Your task to perform on an android device: toggle data saver in the chrome app Image 0: 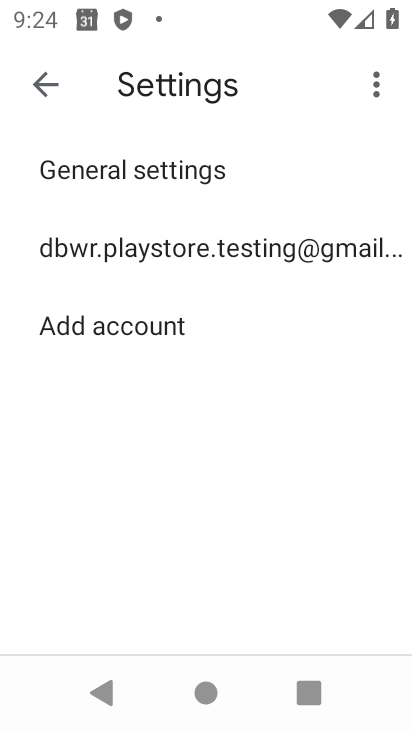
Step 0: press back button
Your task to perform on an android device: toggle data saver in the chrome app Image 1: 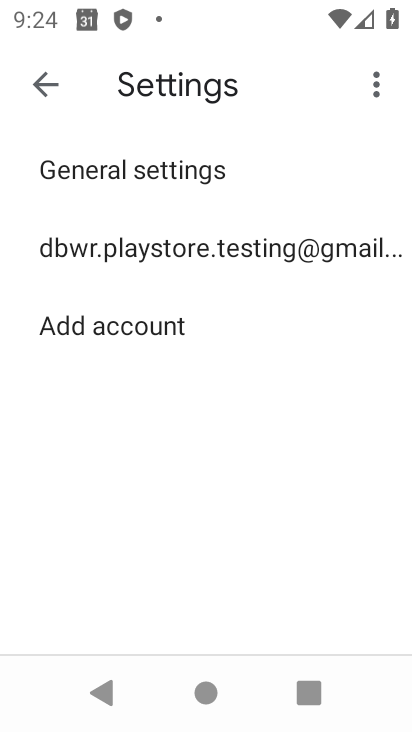
Step 1: press back button
Your task to perform on an android device: toggle data saver in the chrome app Image 2: 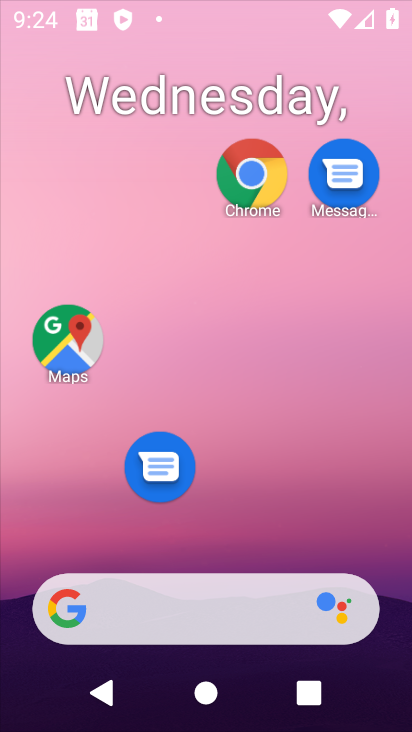
Step 2: press back button
Your task to perform on an android device: toggle data saver in the chrome app Image 3: 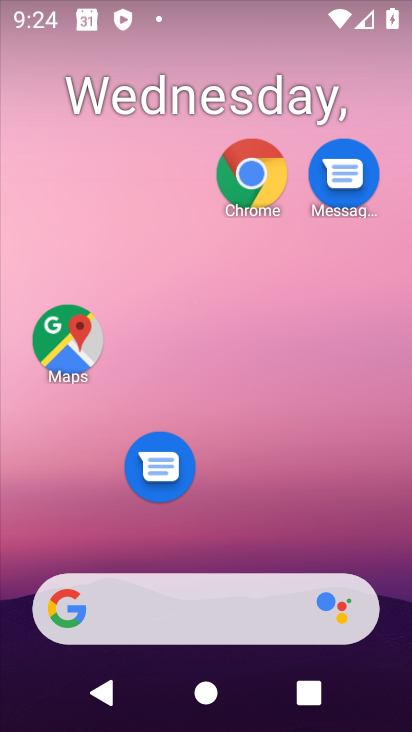
Step 3: drag from (313, 506) to (122, 106)
Your task to perform on an android device: toggle data saver in the chrome app Image 4: 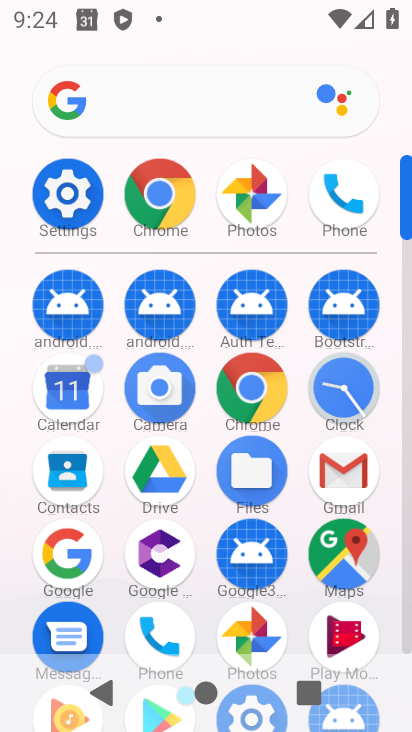
Step 4: click (160, 199)
Your task to perform on an android device: toggle data saver in the chrome app Image 5: 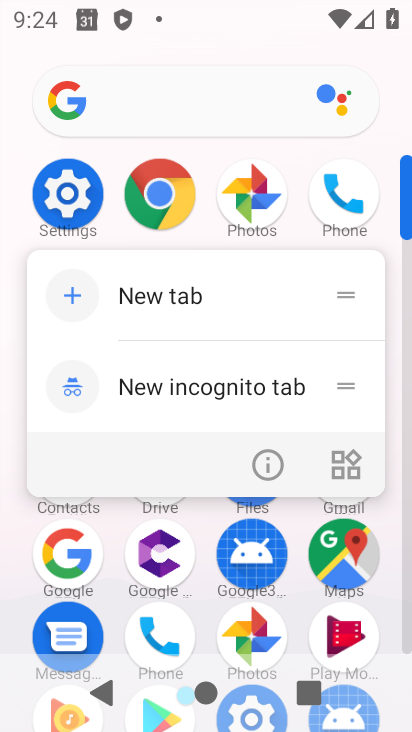
Step 5: click (160, 199)
Your task to perform on an android device: toggle data saver in the chrome app Image 6: 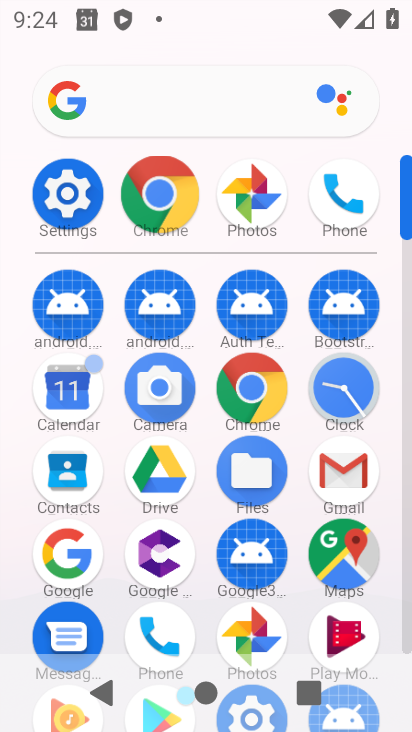
Step 6: click (160, 199)
Your task to perform on an android device: toggle data saver in the chrome app Image 7: 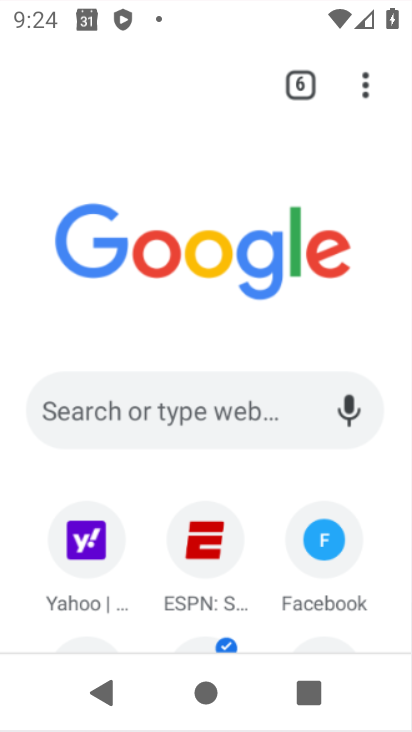
Step 7: click (160, 199)
Your task to perform on an android device: toggle data saver in the chrome app Image 8: 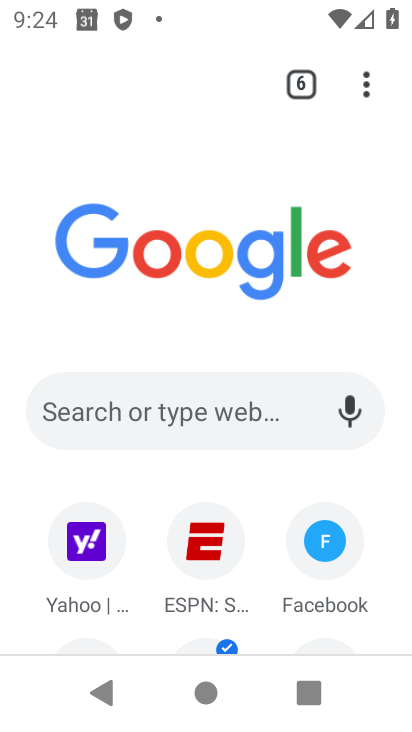
Step 8: click (160, 199)
Your task to perform on an android device: toggle data saver in the chrome app Image 9: 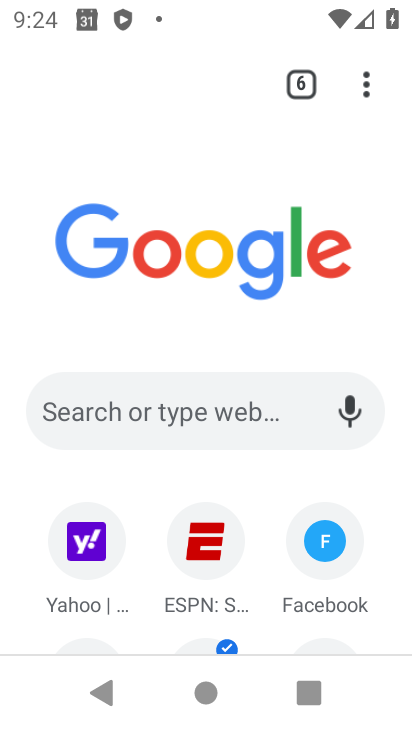
Step 9: drag from (363, 86) to (95, 513)
Your task to perform on an android device: toggle data saver in the chrome app Image 10: 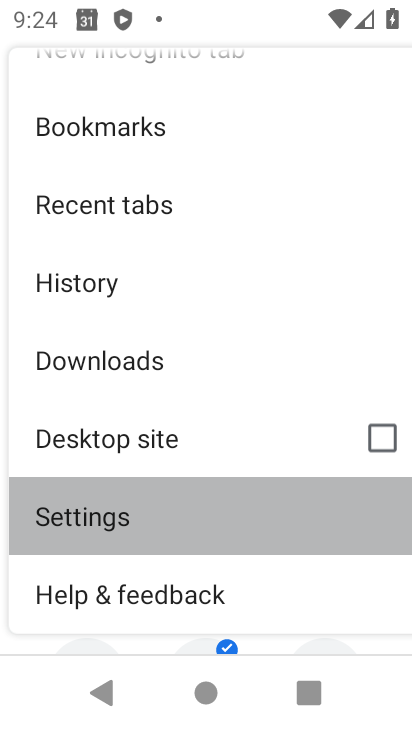
Step 10: click (93, 513)
Your task to perform on an android device: toggle data saver in the chrome app Image 11: 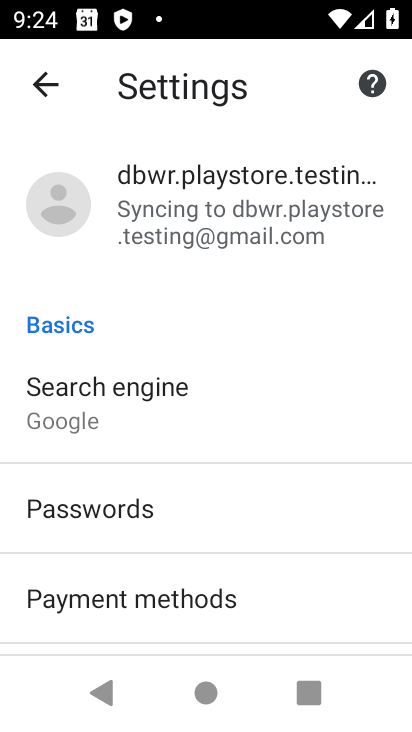
Step 11: drag from (182, 531) to (173, 133)
Your task to perform on an android device: toggle data saver in the chrome app Image 12: 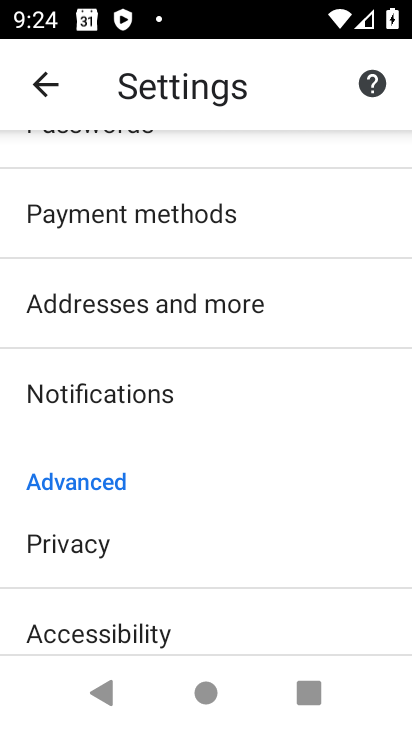
Step 12: drag from (216, 418) to (382, 123)
Your task to perform on an android device: toggle data saver in the chrome app Image 13: 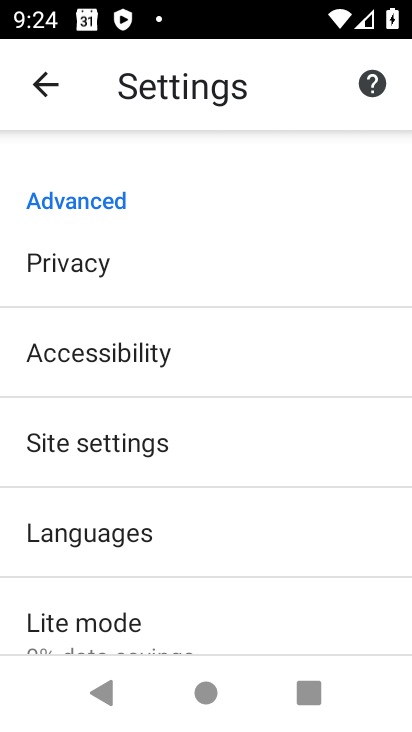
Step 13: click (109, 140)
Your task to perform on an android device: toggle data saver in the chrome app Image 14: 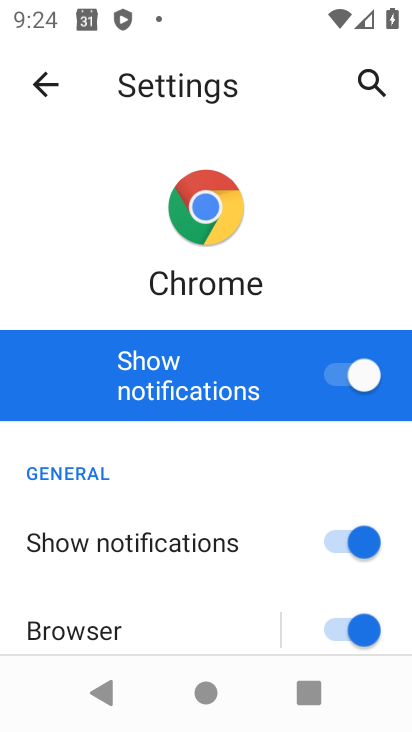
Step 14: click (45, 83)
Your task to perform on an android device: toggle data saver in the chrome app Image 15: 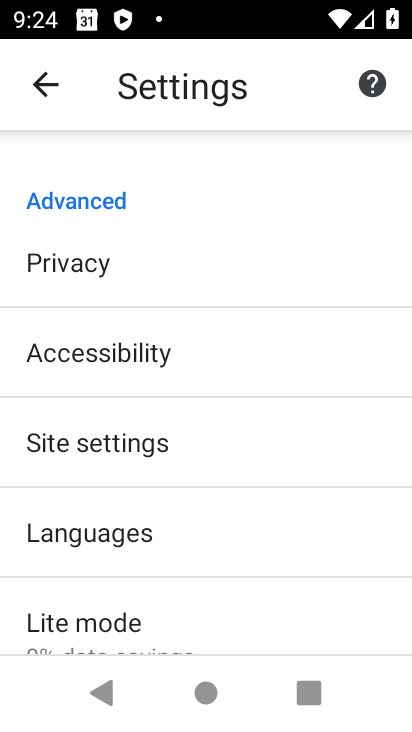
Step 15: drag from (147, 514) to (64, 159)
Your task to perform on an android device: toggle data saver in the chrome app Image 16: 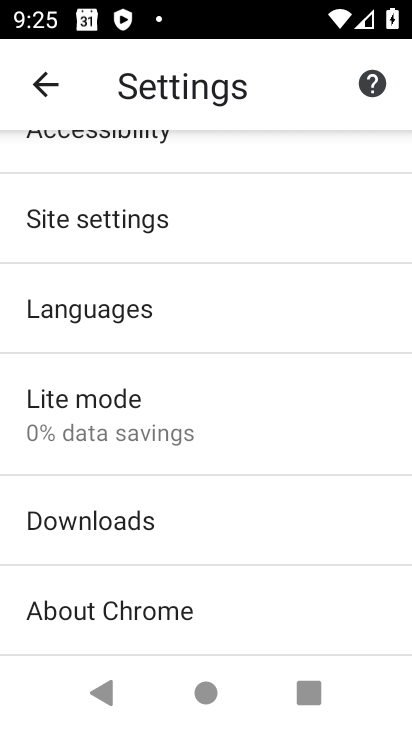
Step 16: click (81, 399)
Your task to perform on an android device: toggle data saver in the chrome app Image 17: 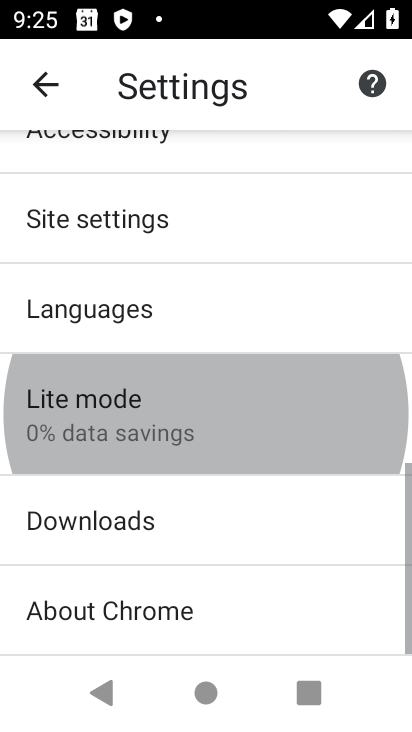
Step 17: click (83, 399)
Your task to perform on an android device: toggle data saver in the chrome app Image 18: 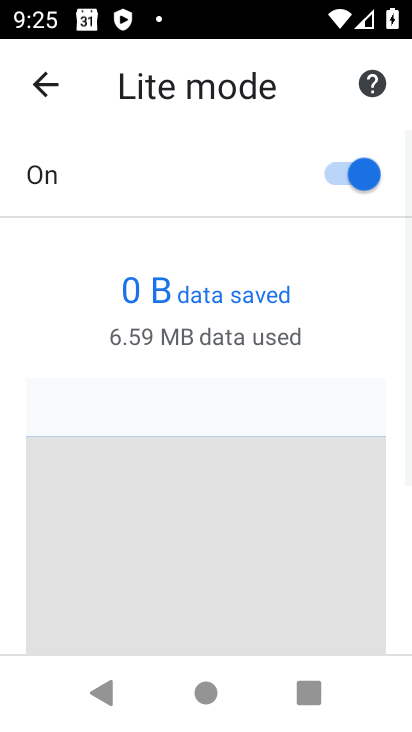
Step 18: click (82, 397)
Your task to perform on an android device: toggle data saver in the chrome app Image 19: 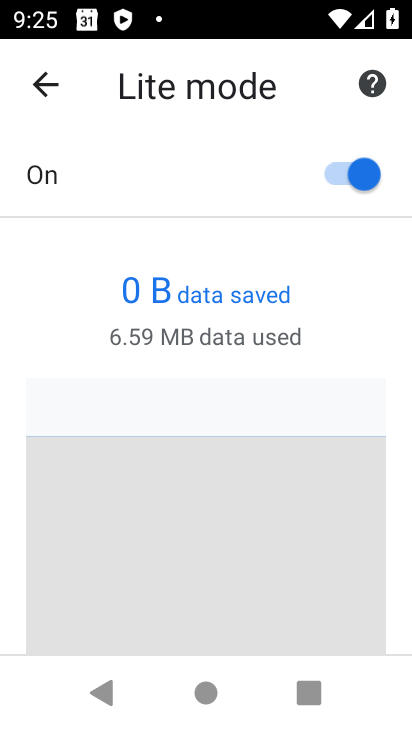
Step 19: click (361, 171)
Your task to perform on an android device: toggle data saver in the chrome app Image 20: 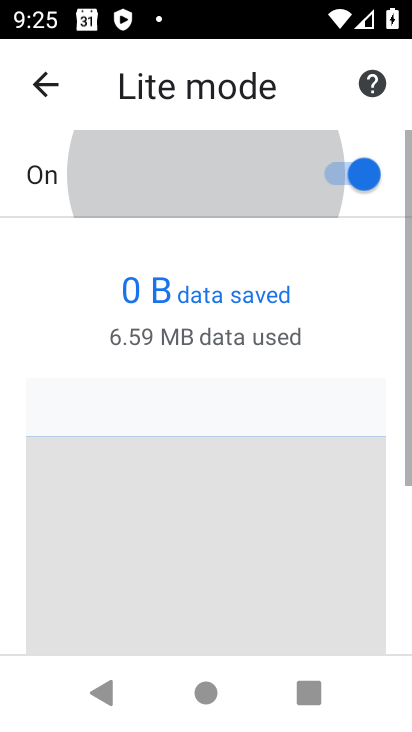
Step 20: click (353, 166)
Your task to perform on an android device: toggle data saver in the chrome app Image 21: 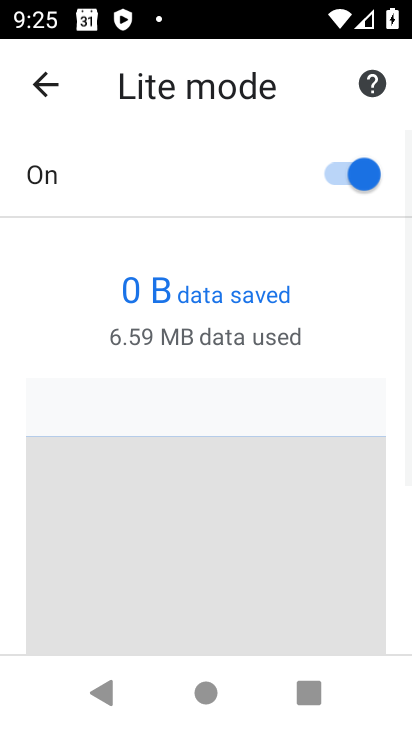
Step 21: click (357, 167)
Your task to perform on an android device: toggle data saver in the chrome app Image 22: 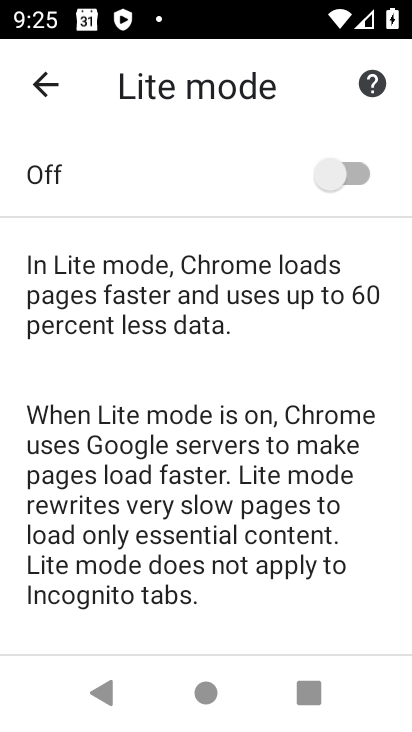
Step 22: task complete